Your task to perform on an android device: turn on notifications settings in the gmail app Image 0: 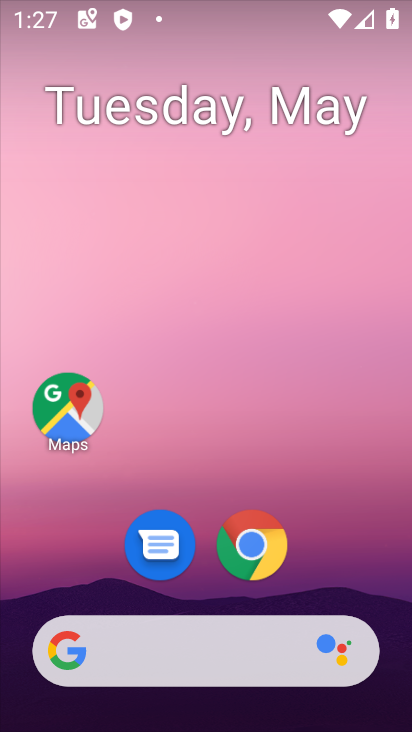
Step 0: drag from (400, 608) to (367, 69)
Your task to perform on an android device: turn on notifications settings in the gmail app Image 1: 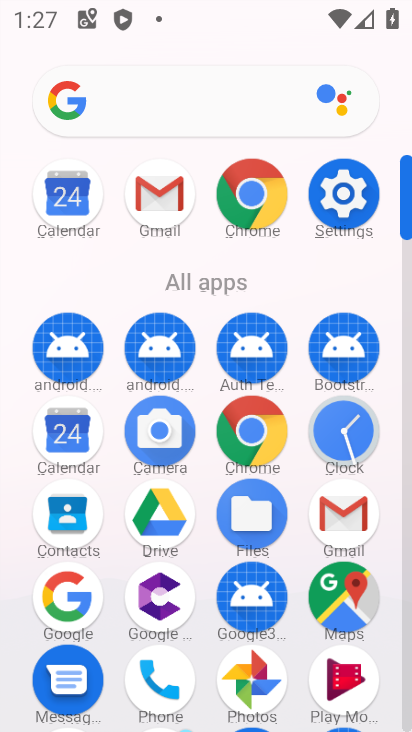
Step 1: click (409, 693)
Your task to perform on an android device: turn on notifications settings in the gmail app Image 2: 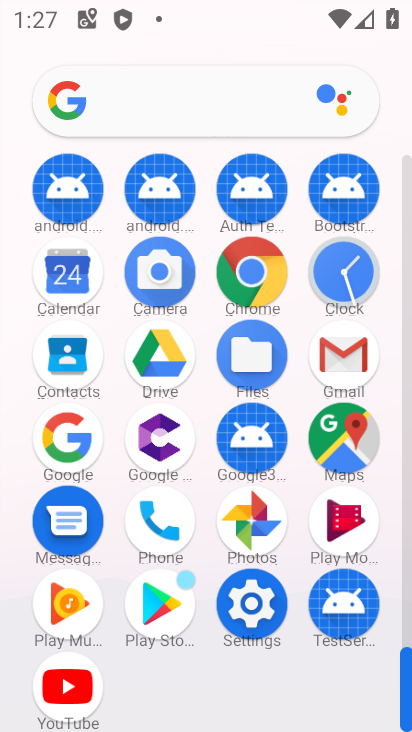
Step 2: click (344, 354)
Your task to perform on an android device: turn on notifications settings in the gmail app Image 3: 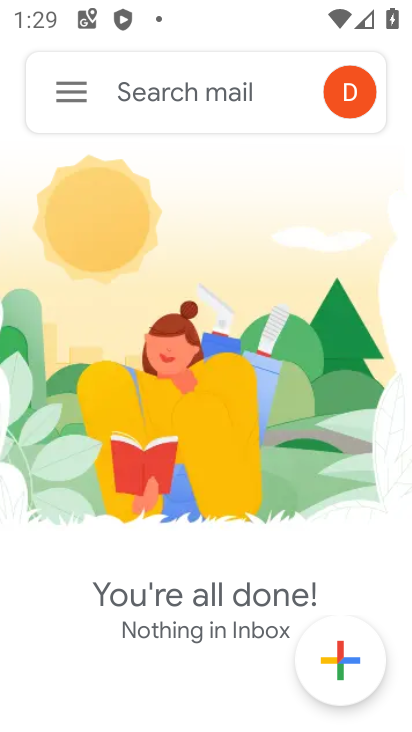
Step 3: click (71, 100)
Your task to perform on an android device: turn on notifications settings in the gmail app Image 4: 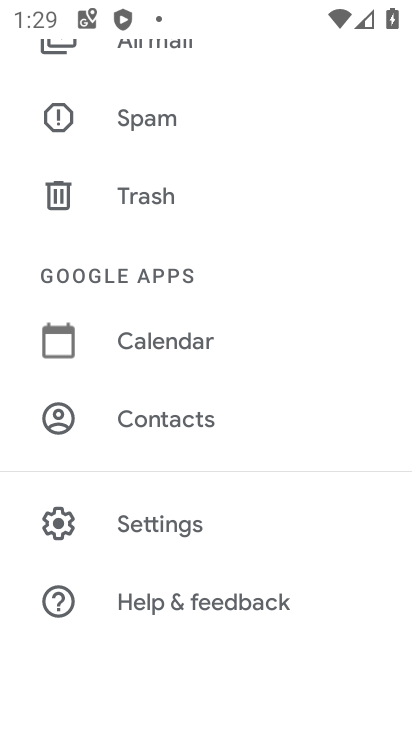
Step 4: click (133, 524)
Your task to perform on an android device: turn on notifications settings in the gmail app Image 5: 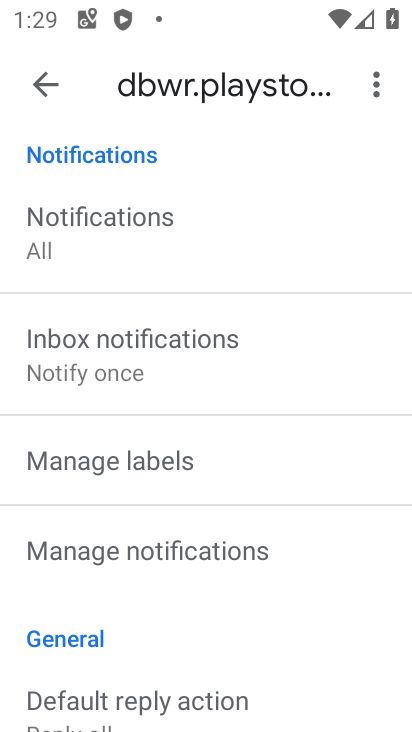
Step 5: click (172, 546)
Your task to perform on an android device: turn on notifications settings in the gmail app Image 6: 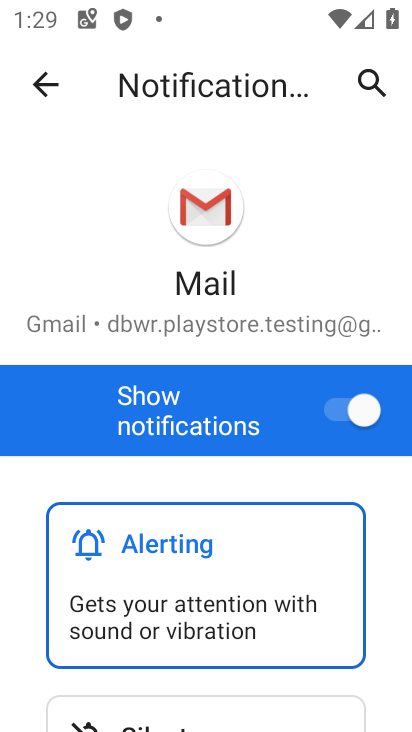
Step 6: task complete